Your task to perform on an android device: Go to accessibility settings Image 0: 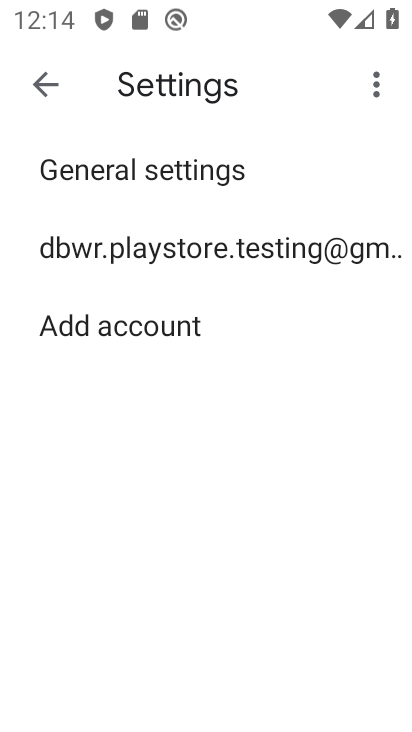
Step 0: press home button
Your task to perform on an android device: Go to accessibility settings Image 1: 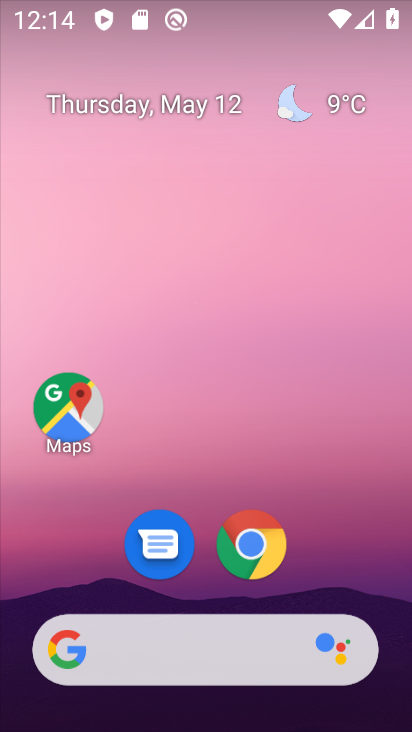
Step 1: drag from (189, 721) to (187, 202)
Your task to perform on an android device: Go to accessibility settings Image 2: 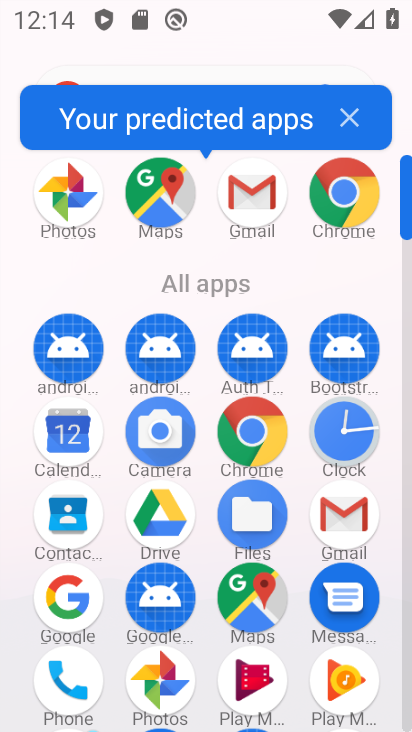
Step 2: drag from (25, 564) to (25, 193)
Your task to perform on an android device: Go to accessibility settings Image 3: 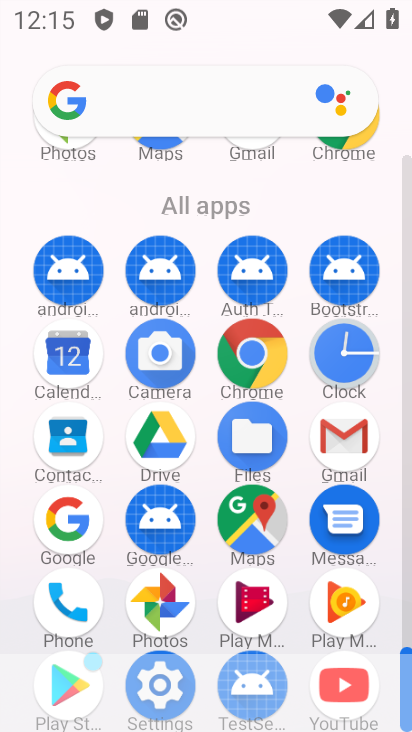
Step 3: click (158, 658)
Your task to perform on an android device: Go to accessibility settings Image 4: 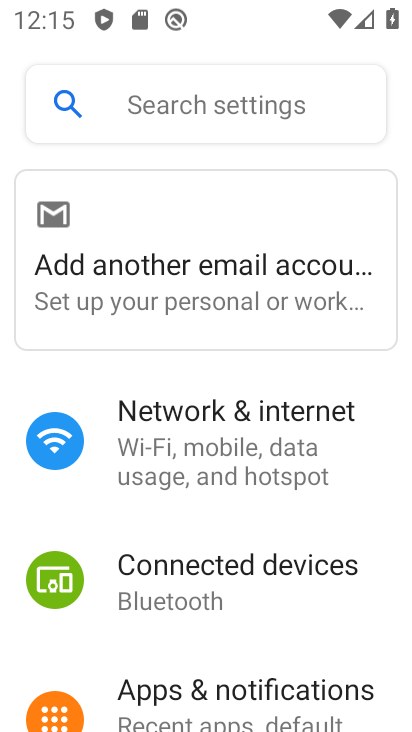
Step 4: drag from (165, 635) to (147, 296)
Your task to perform on an android device: Go to accessibility settings Image 5: 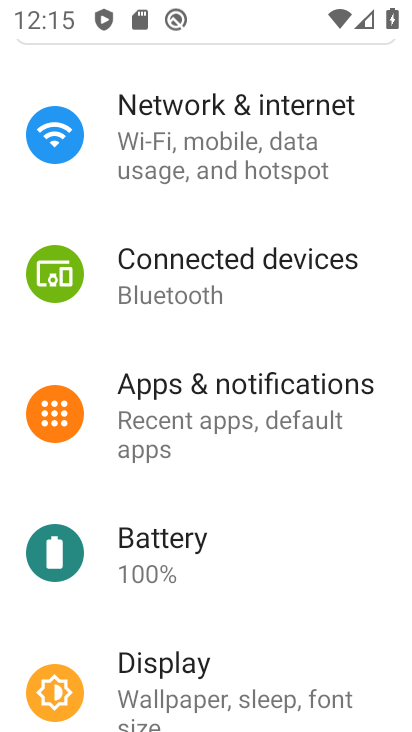
Step 5: drag from (218, 620) to (202, 219)
Your task to perform on an android device: Go to accessibility settings Image 6: 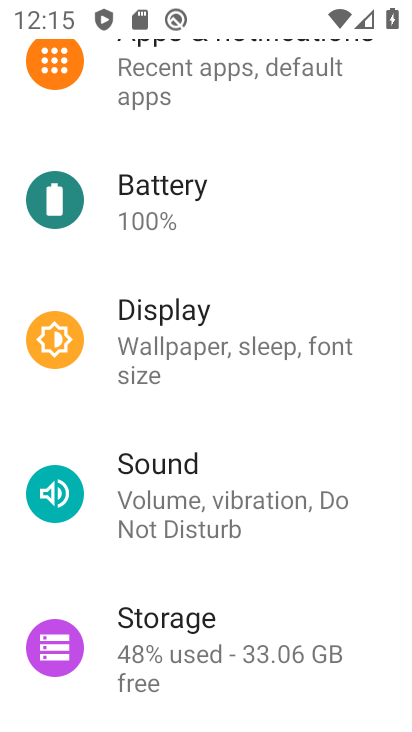
Step 6: drag from (206, 583) to (217, 173)
Your task to perform on an android device: Go to accessibility settings Image 7: 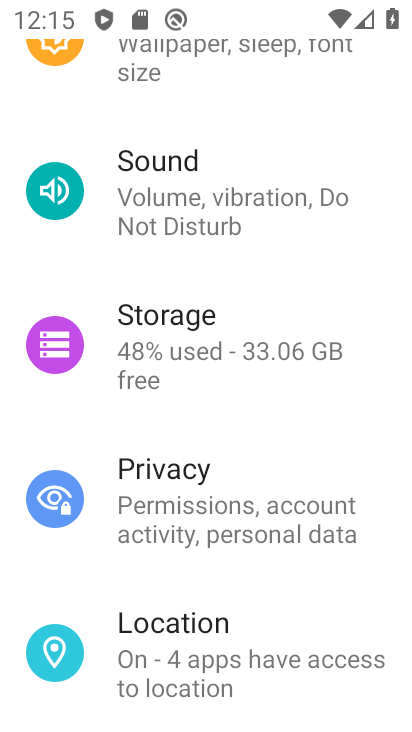
Step 7: drag from (182, 611) to (182, 232)
Your task to perform on an android device: Go to accessibility settings Image 8: 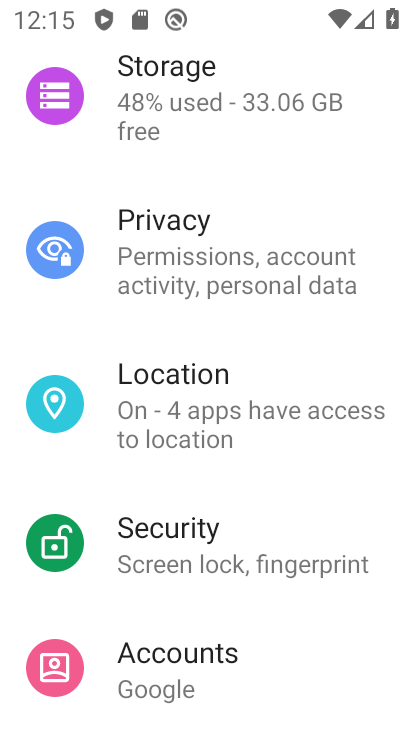
Step 8: drag from (179, 609) to (179, 167)
Your task to perform on an android device: Go to accessibility settings Image 9: 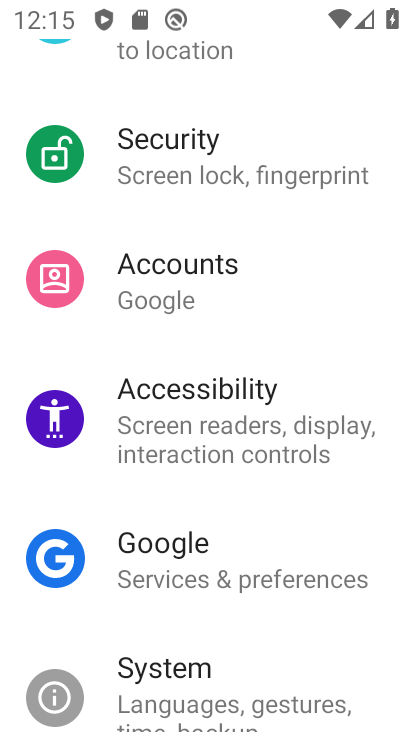
Step 9: click (185, 407)
Your task to perform on an android device: Go to accessibility settings Image 10: 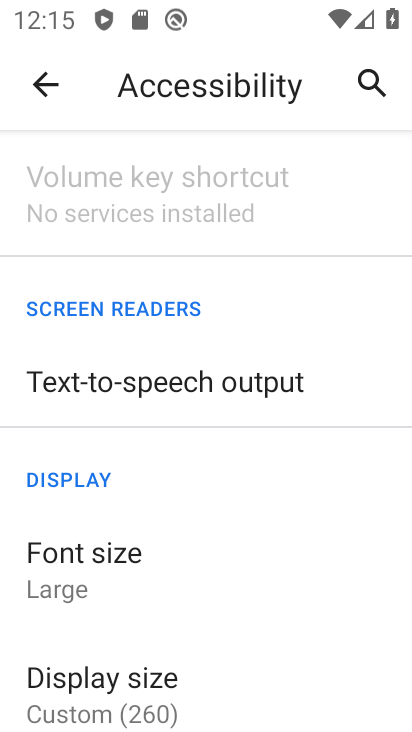
Step 10: task complete